Your task to perform on an android device: Go to settings Image 0: 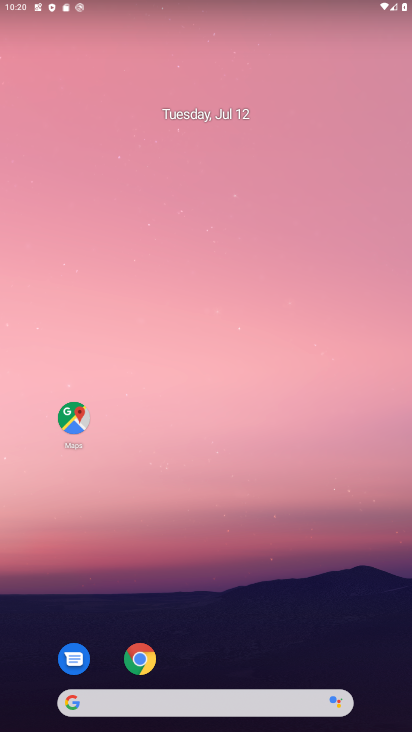
Step 0: drag from (394, 704) to (332, 213)
Your task to perform on an android device: Go to settings Image 1: 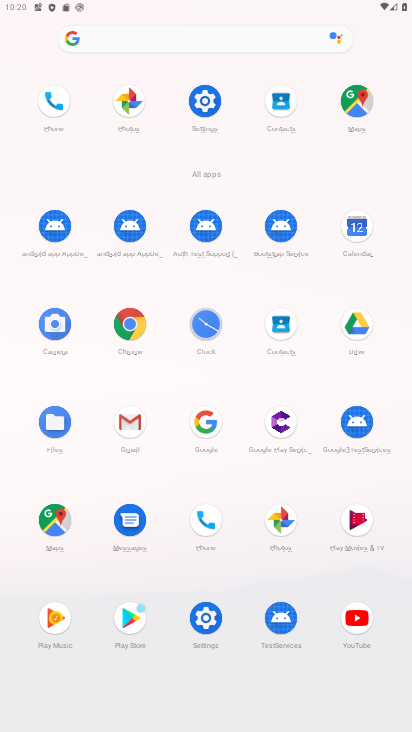
Step 1: click (203, 628)
Your task to perform on an android device: Go to settings Image 2: 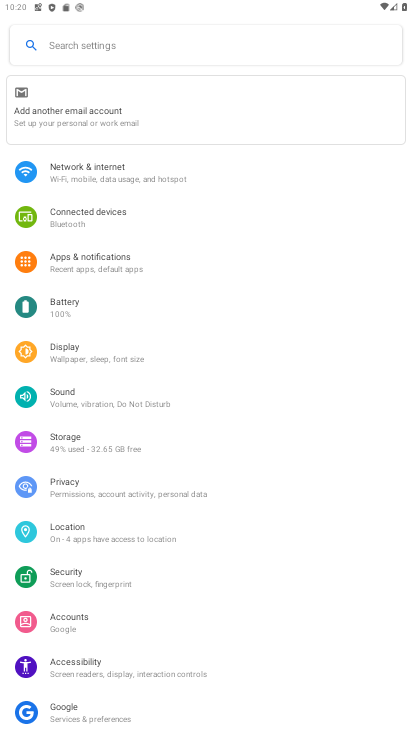
Step 2: task complete